Your task to perform on an android device: turn on improve location accuracy Image 0: 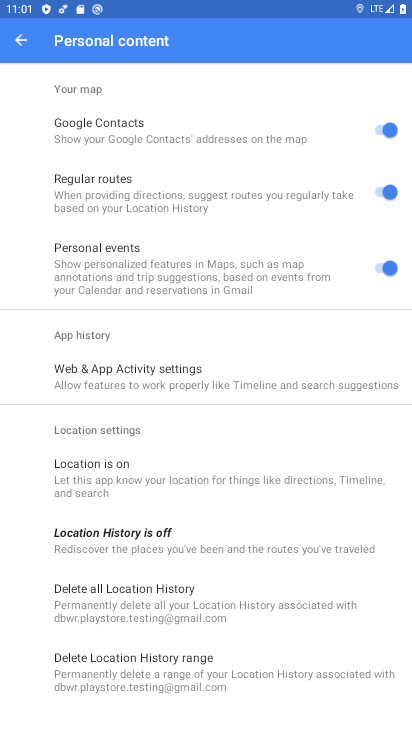
Step 0: press home button
Your task to perform on an android device: turn on improve location accuracy Image 1: 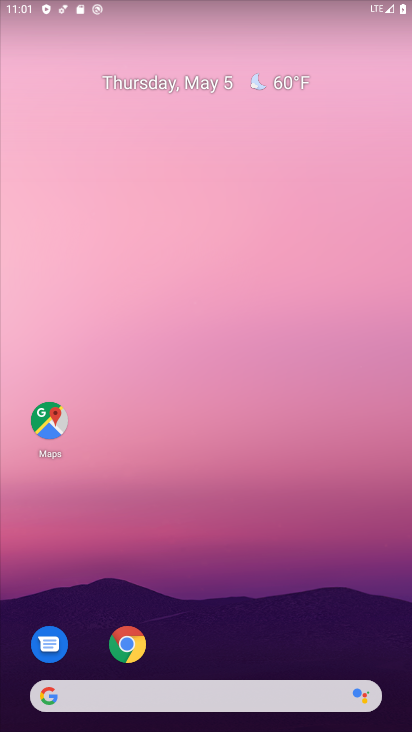
Step 1: drag from (395, 624) to (367, 153)
Your task to perform on an android device: turn on improve location accuracy Image 2: 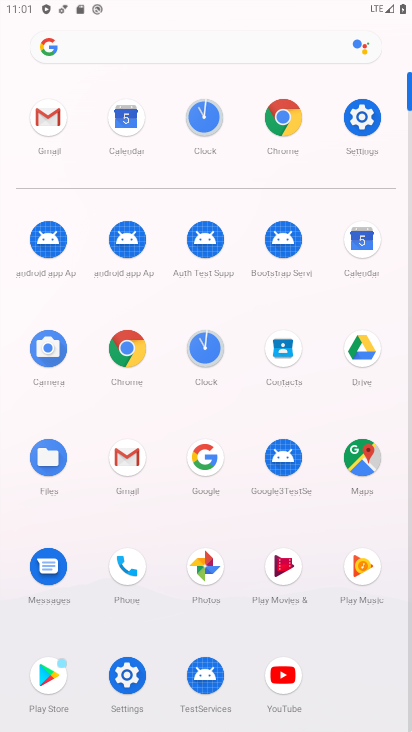
Step 2: click (367, 114)
Your task to perform on an android device: turn on improve location accuracy Image 3: 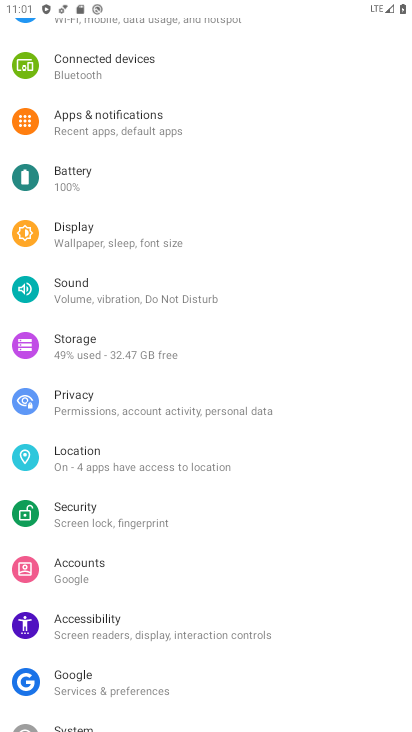
Step 3: drag from (233, 562) to (291, 207)
Your task to perform on an android device: turn on improve location accuracy Image 4: 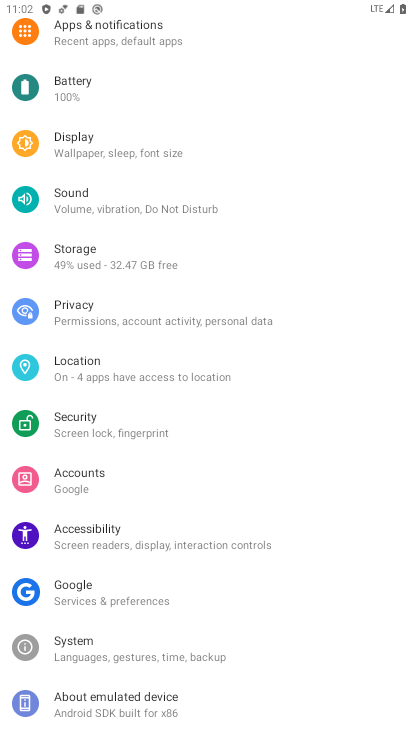
Step 4: click (136, 371)
Your task to perform on an android device: turn on improve location accuracy Image 5: 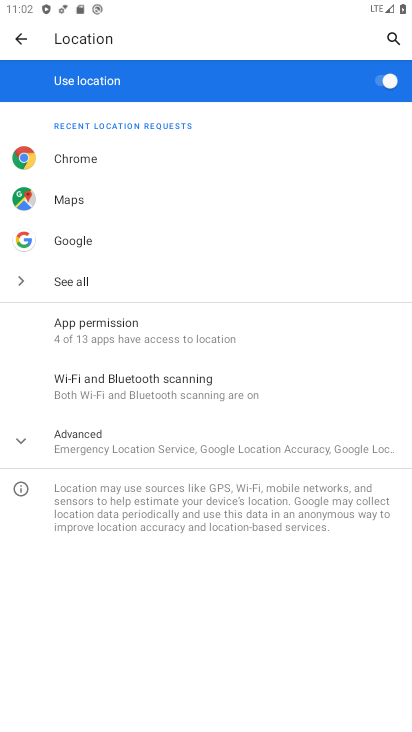
Step 5: click (152, 440)
Your task to perform on an android device: turn on improve location accuracy Image 6: 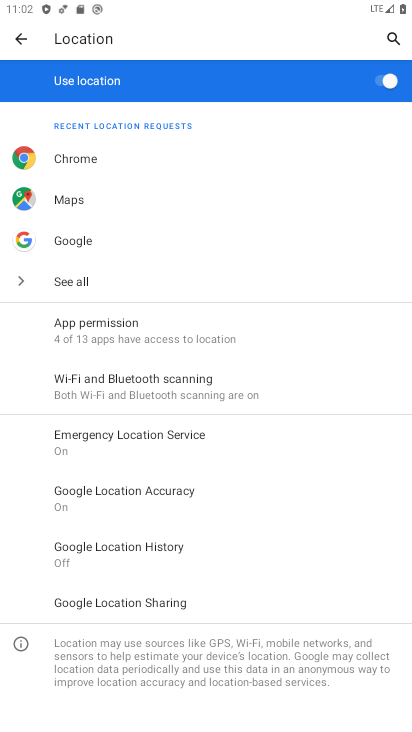
Step 6: click (128, 491)
Your task to perform on an android device: turn on improve location accuracy Image 7: 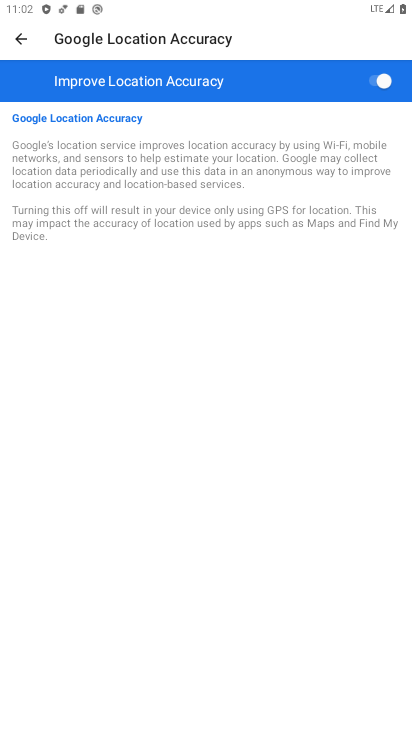
Step 7: task complete